Your task to perform on an android device: Go to battery settings Image 0: 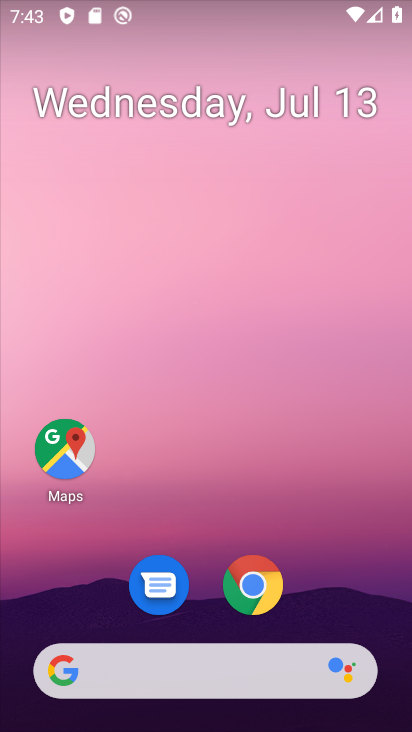
Step 0: drag from (301, 523) to (263, 9)
Your task to perform on an android device: Go to battery settings Image 1: 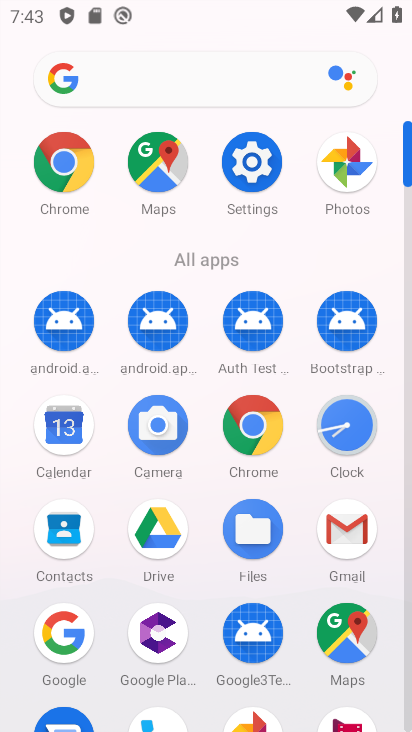
Step 1: click (257, 163)
Your task to perform on an android device: Go to battery settings Image 2: 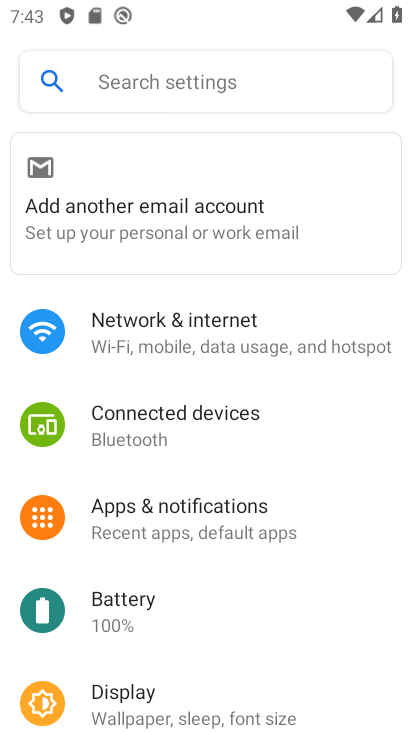
Step 2: click (132, 602)
Your task to perform on an android device: Go to battery settings Image 3: 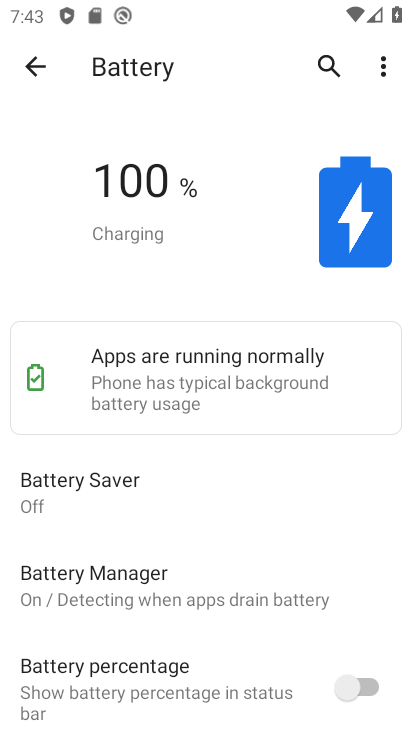
Step 3: task complete